Your task to perform on an android device: open the mobile data screen to see how much data has been used Image 0: 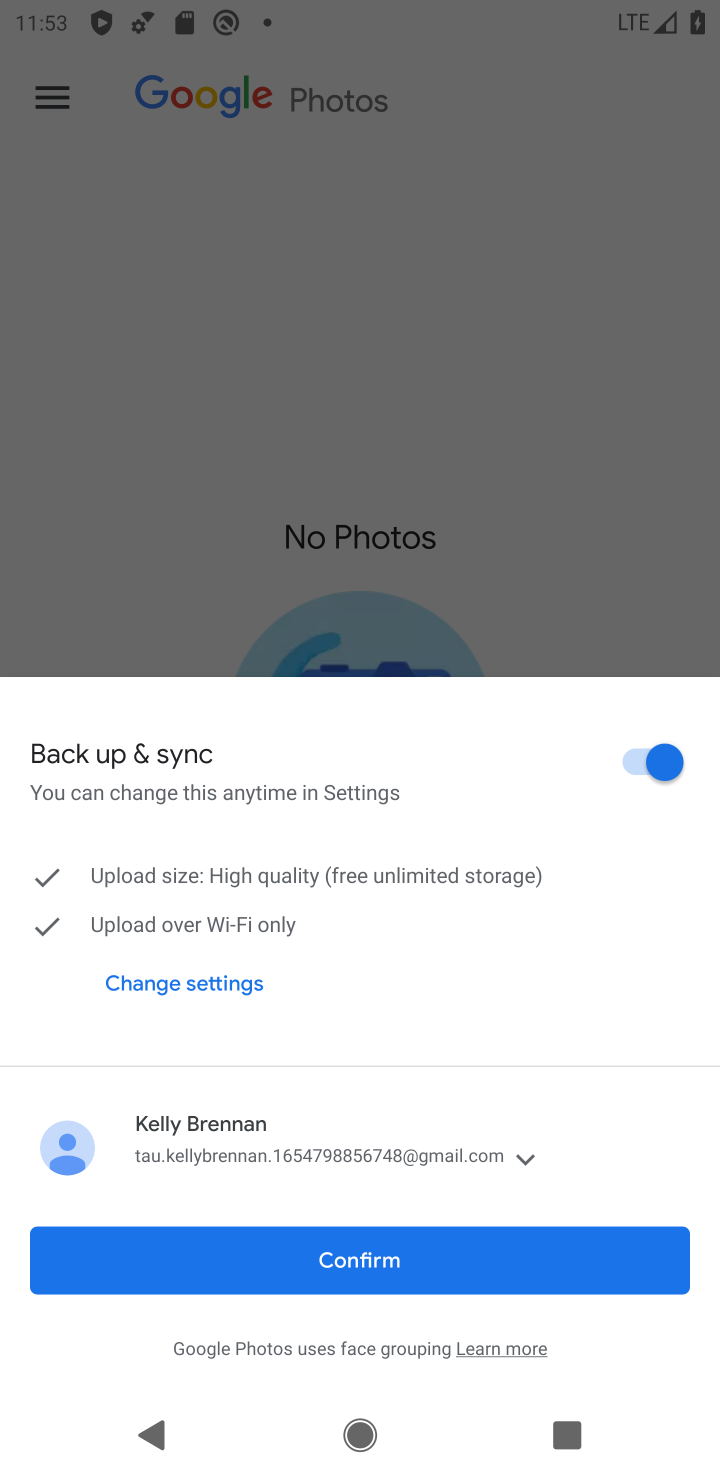
Step 0: press home button
Your task to perform on an android device: open the mobile data screen to see how much data has been used Image 1: 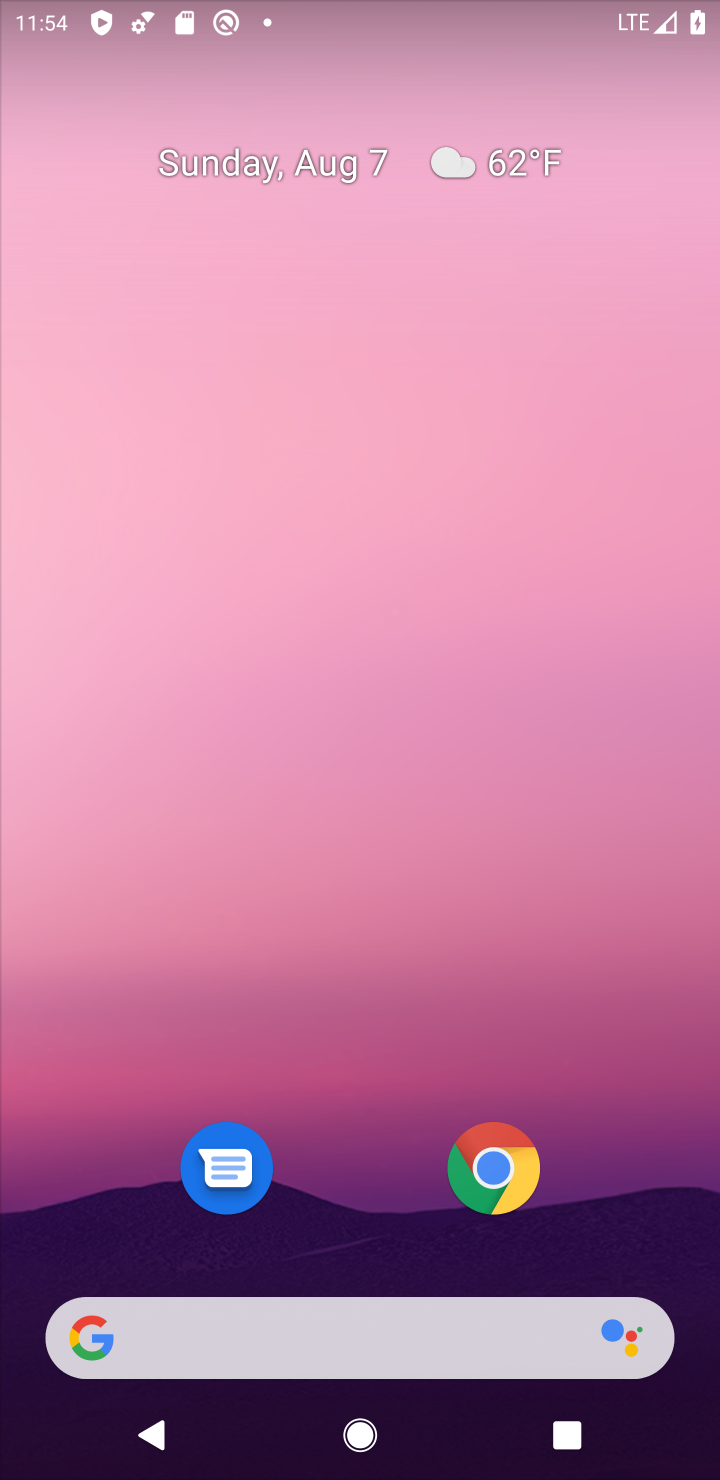
Step 1: click (412, 486)
Your task to perform on an android device: open the mobile data screen to see how much data has been used Image 2: 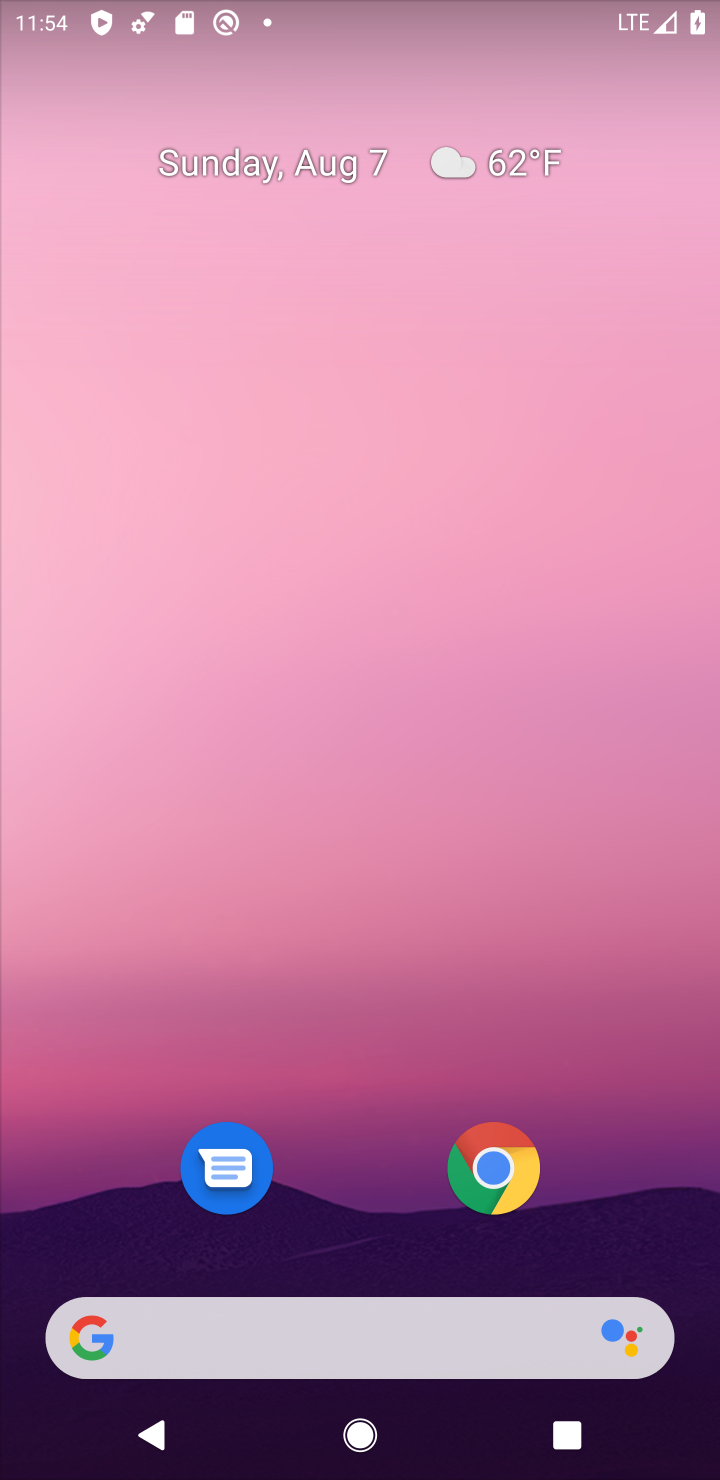
Step 2: drag from (296, 794) to (230, 144)
Your task to perform on an android device: open the mobile data screen to see how much data has been used Image 3: 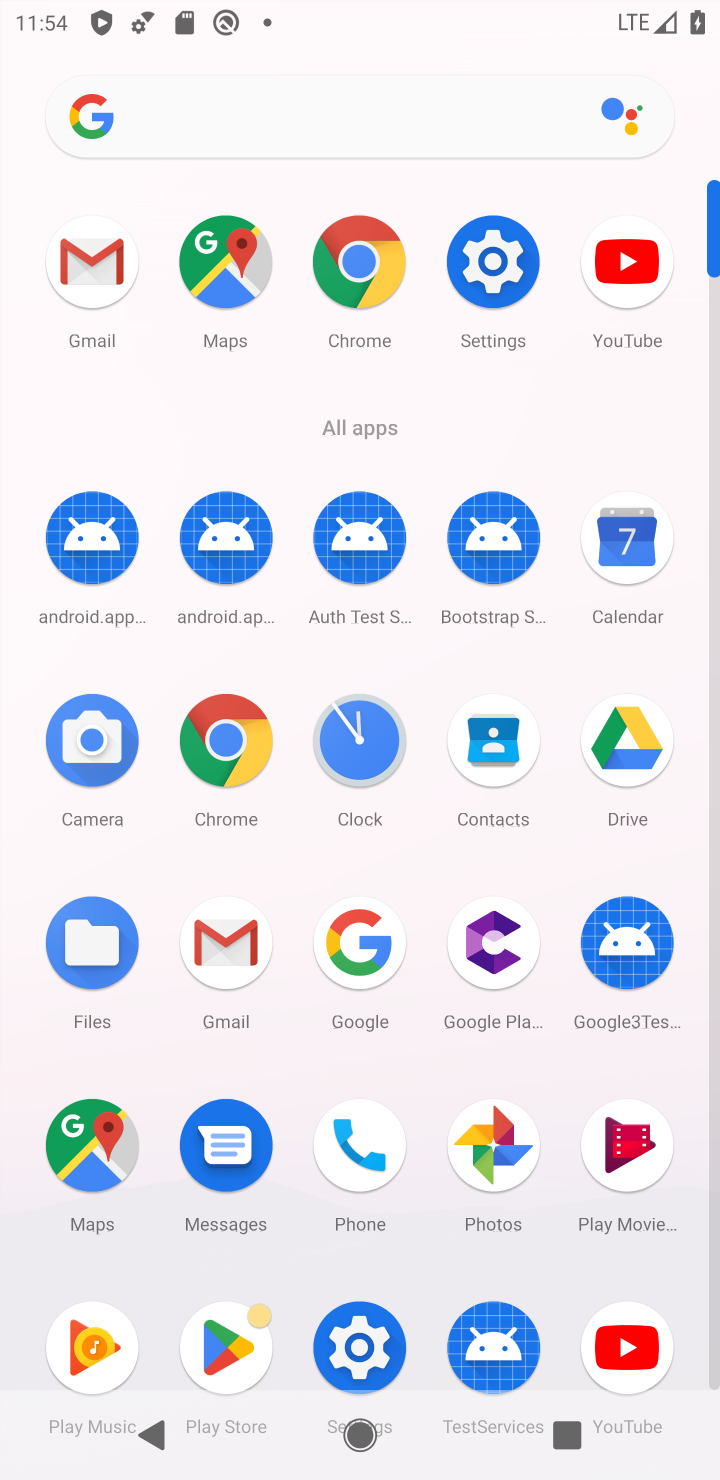
Step 3: click (515, 286)
Your task to perform on an android device: open the mobile data screen to see how much data has been used Image 4: 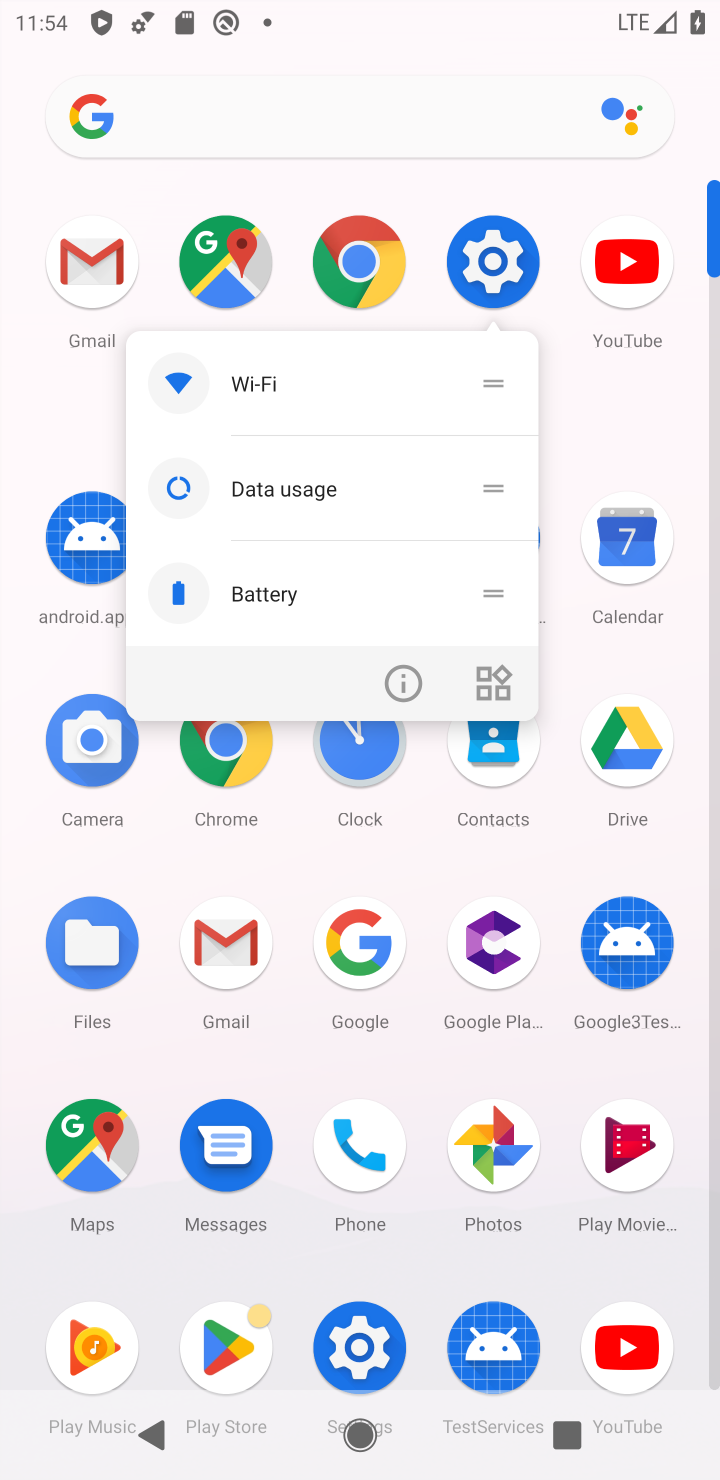
Step 4: click (515, 286)
Your task to perform on an android device: open the mobile data screen to see how much data has been used Image 5: 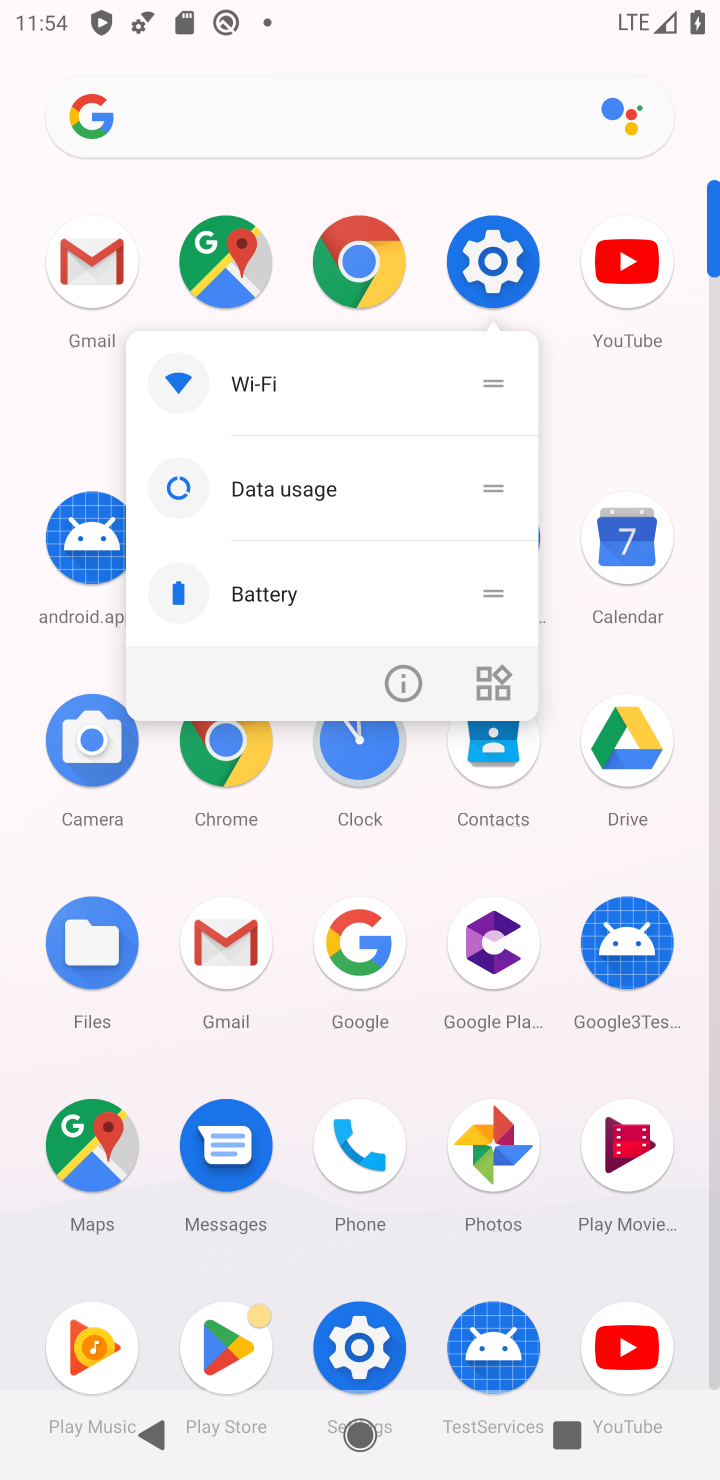
Step 5: click (497, 255)
Your task to perform on an android device: open the mobile data screen to see how much data has been used Image 6: 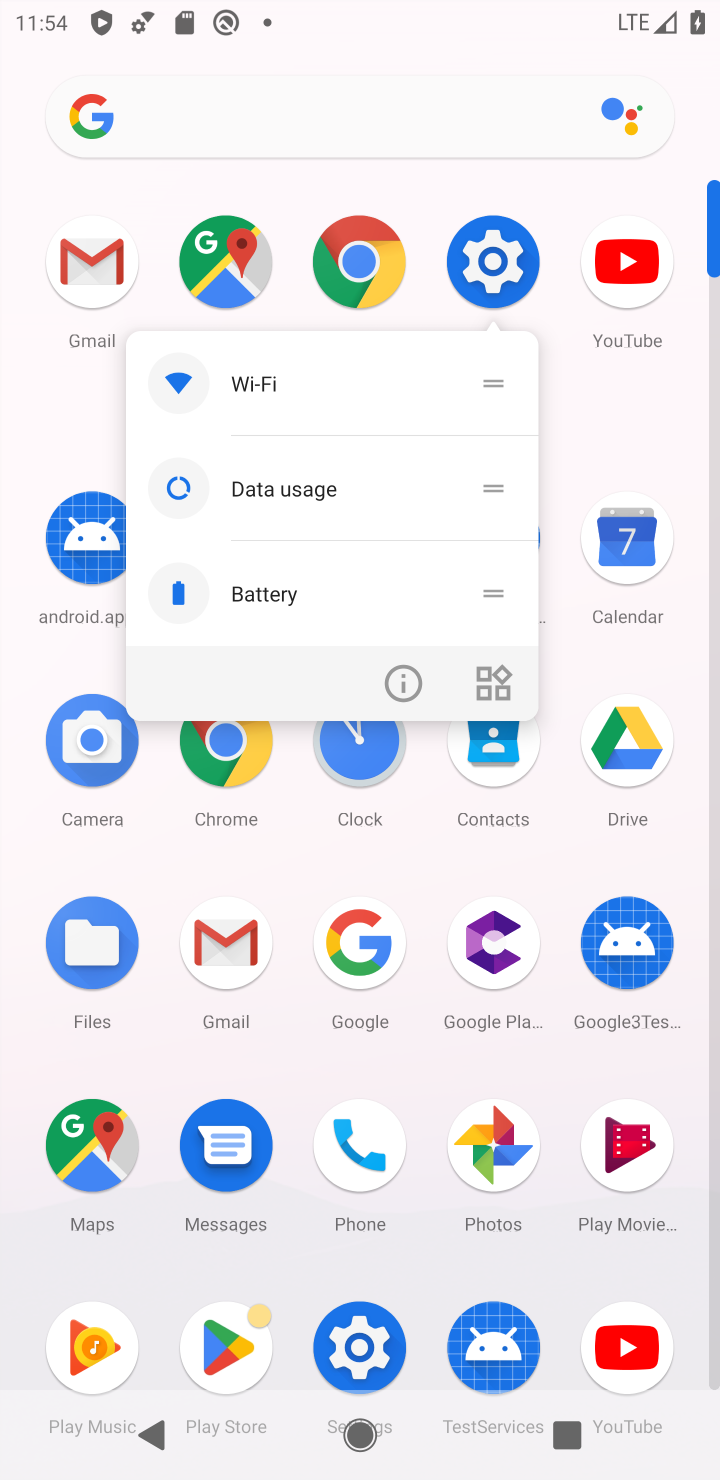
Step 6: click (519, 226)
Your task to perform on an android device: open the mobile data screen to see how much data has been used Image 7: 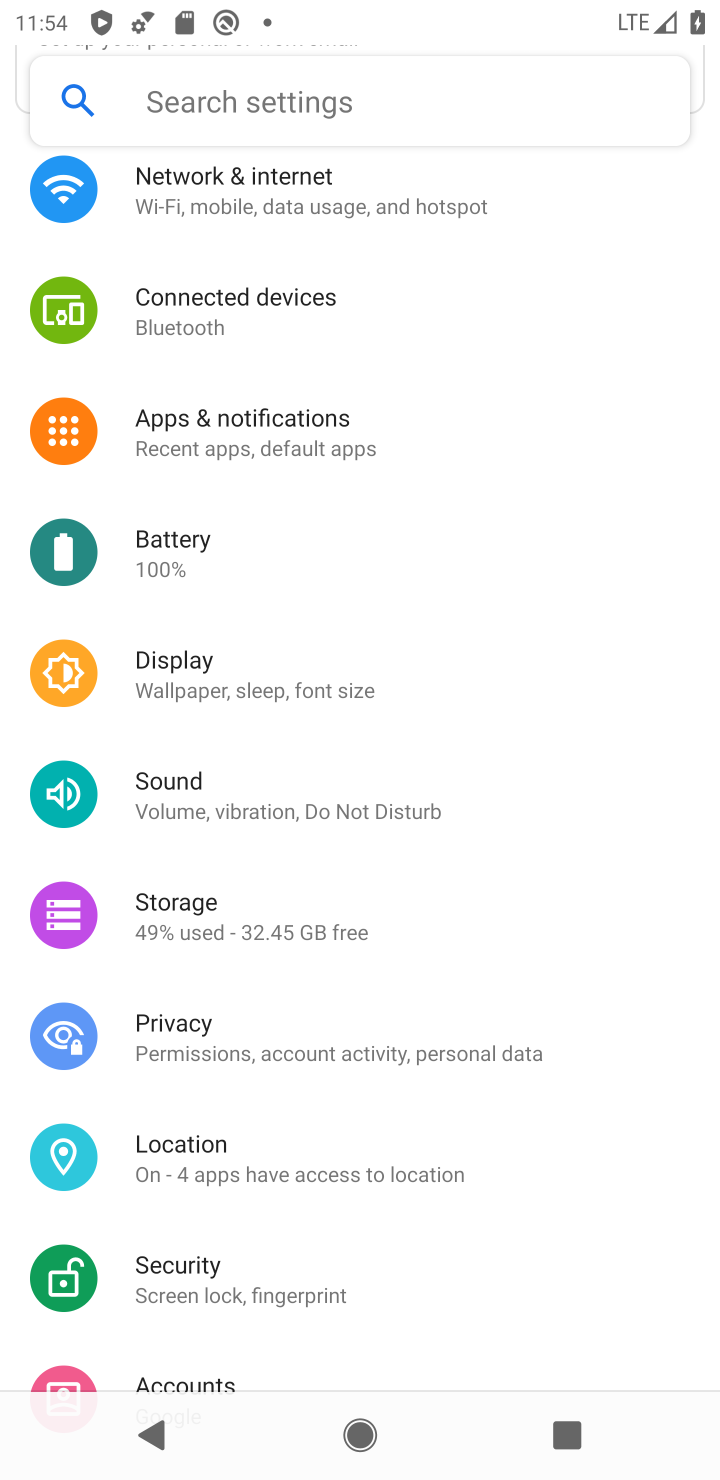
Step 7: click (272, 198)
Your task to perform on an android device: open the mobile data screen to see how much data has been used Image 8: 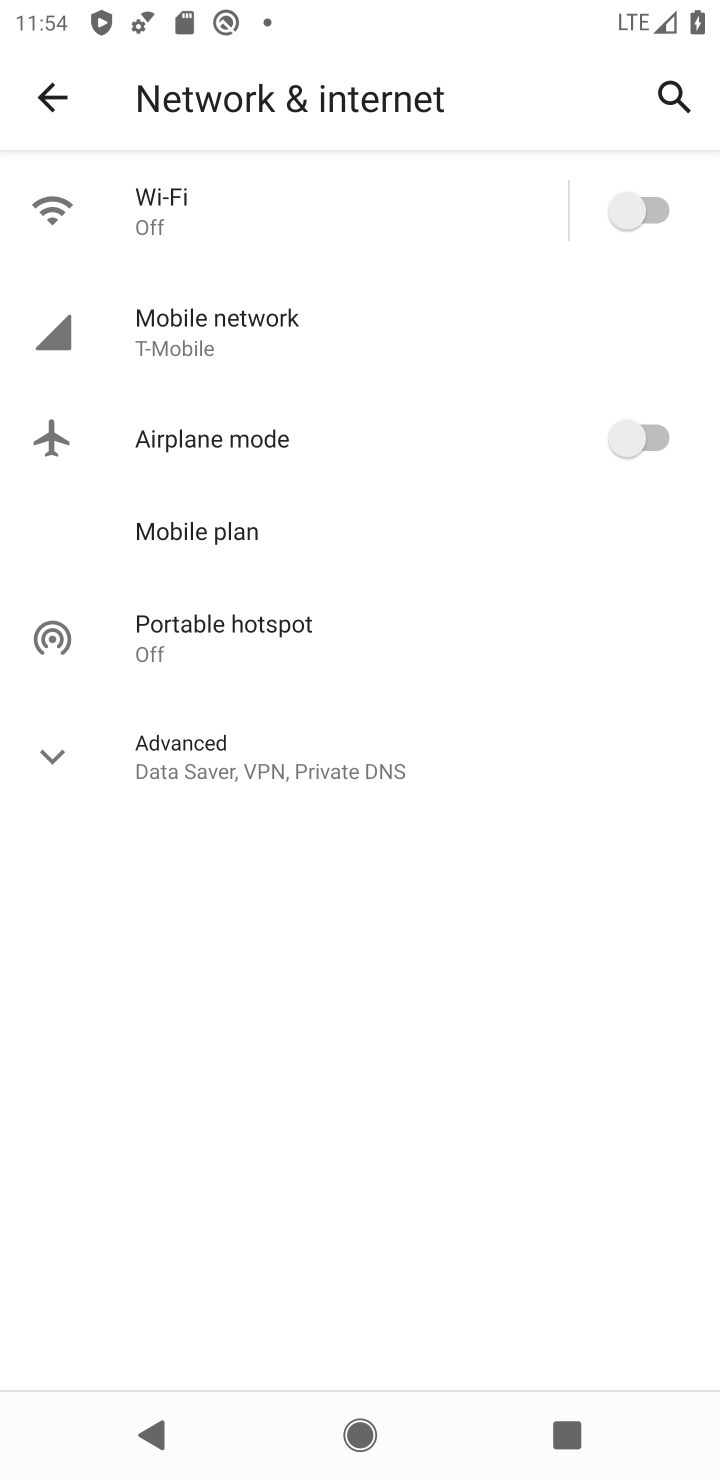
Step 8: click (186, 329)
Your task to perform on an android device: open the mobile data screen to see how much data has been used Image 9: 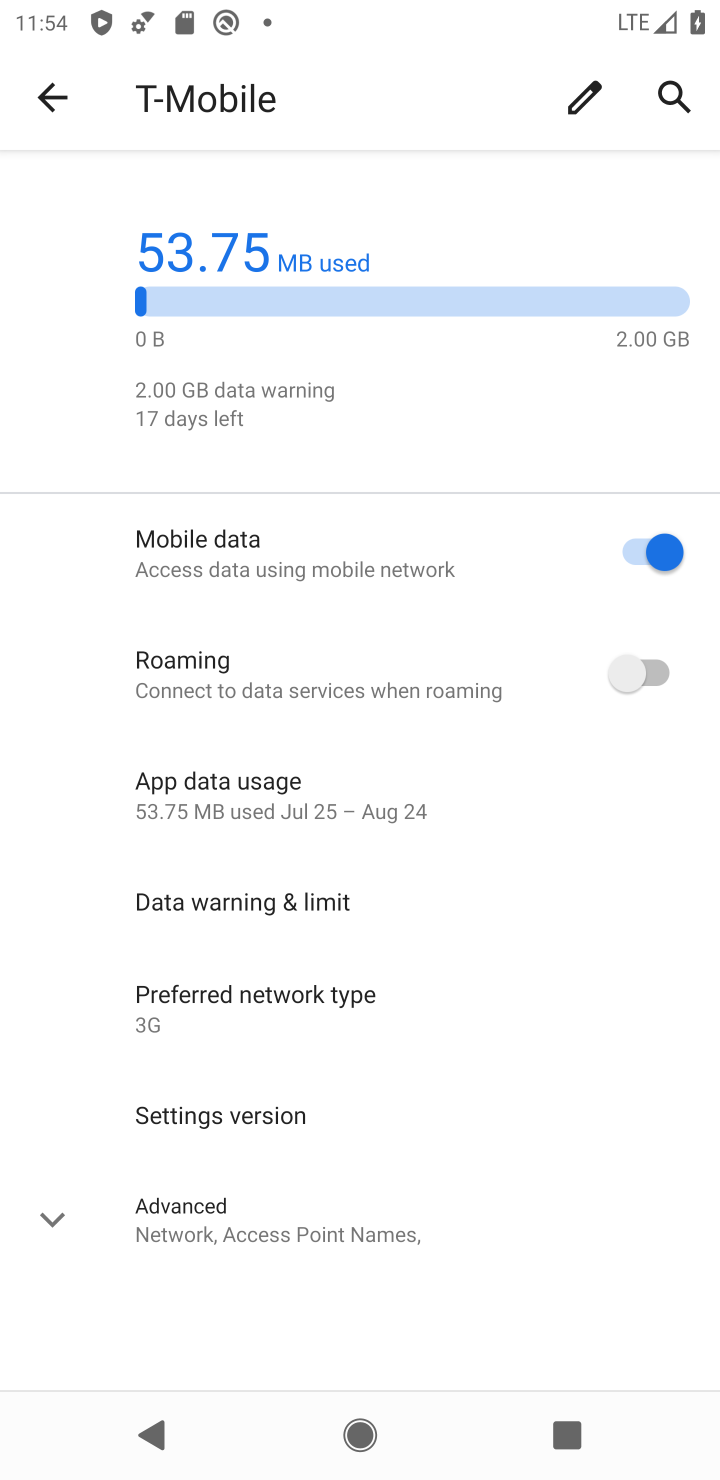
Step 9: click (223, 792)
Your task to perform on an android device: open the mobile data screen to see how much data has been used Image 10: 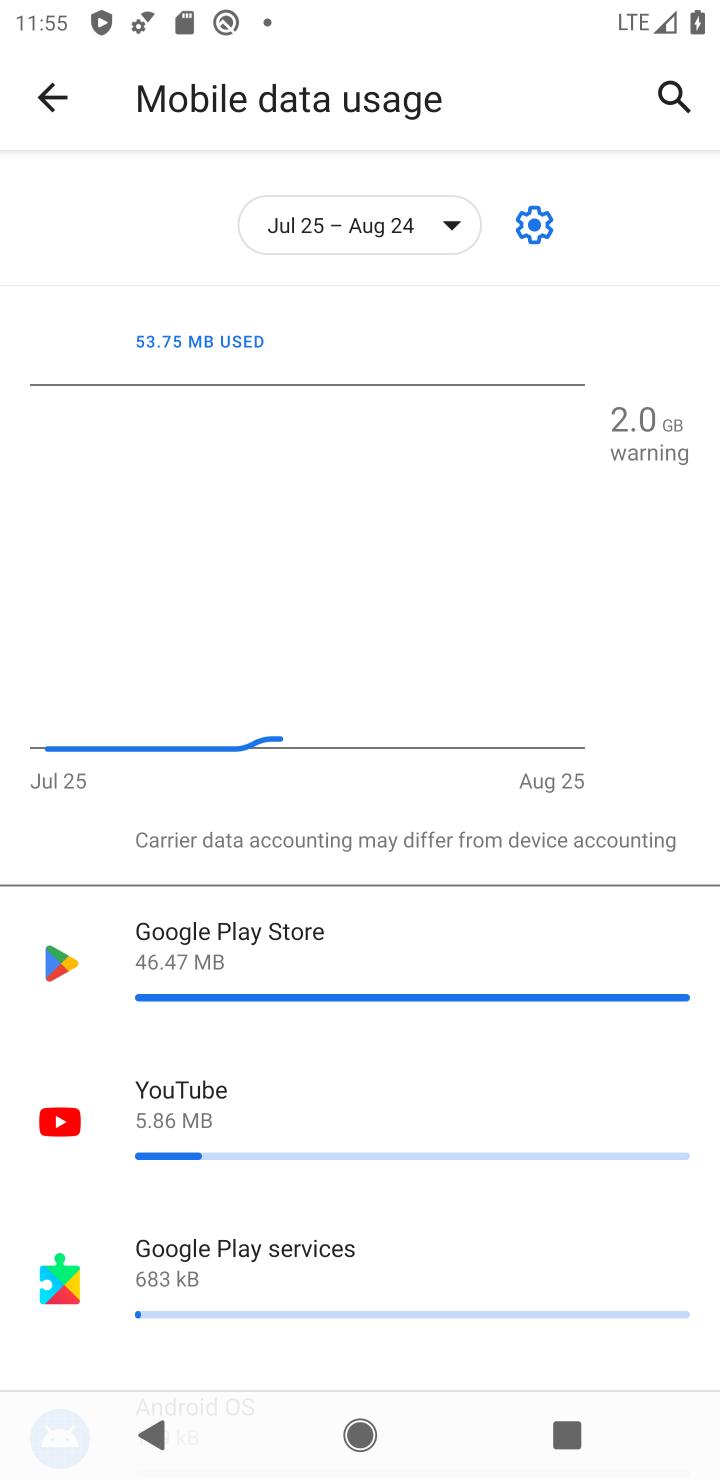
Step 10: task complete